Your task to perform on an android device: Open Google Image 0: 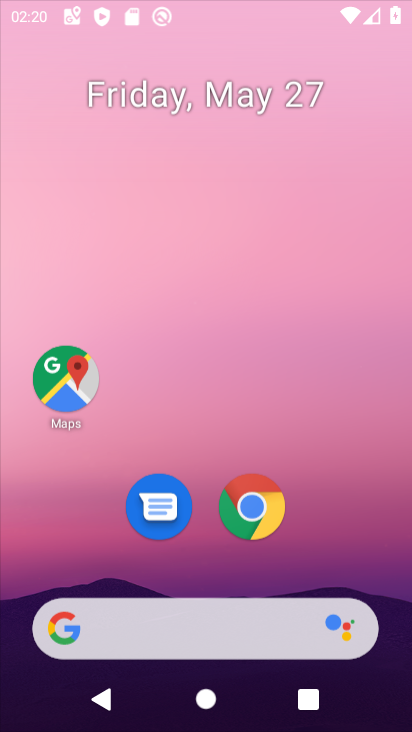
Step 0: drag from (198, 556) to (204, 91)
Your task to perform on an android device: Open Google Image 1: 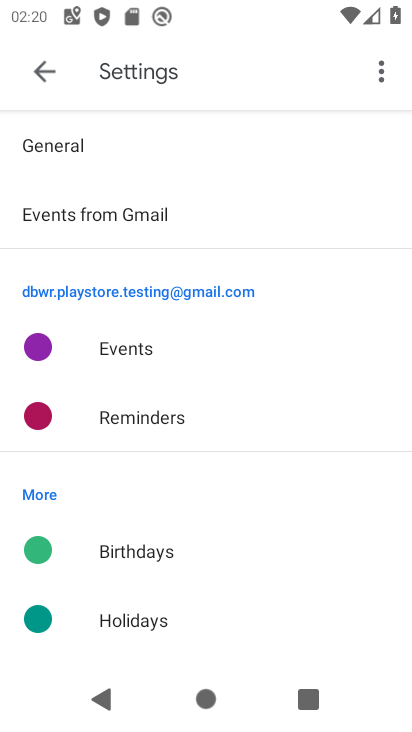
Step 1: press home button
Your task to perform on an android device: Open Google Image 2: 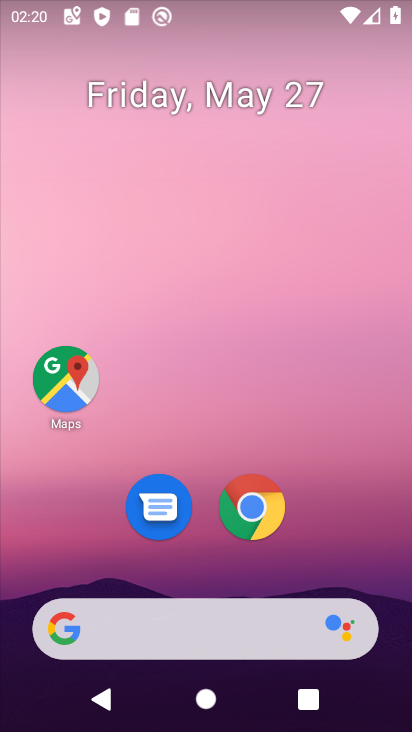
Step 2: drag from (187, 524) to (199, 104)
Your task to perform on an android device: Open Google Image 3: 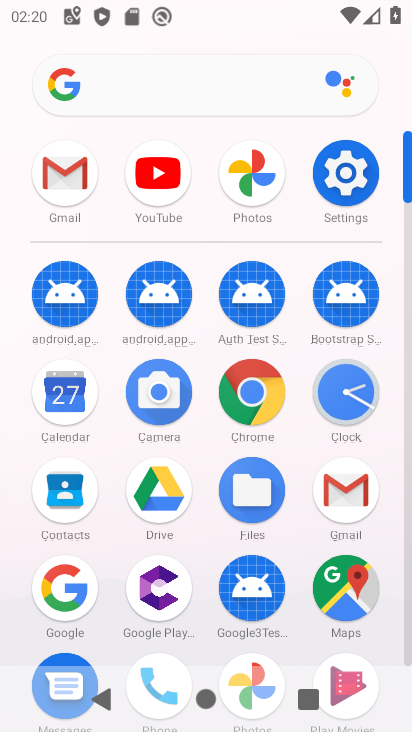
Step 3: click (70, 594)
Your task to perform on an android device: Open Google Image 4: 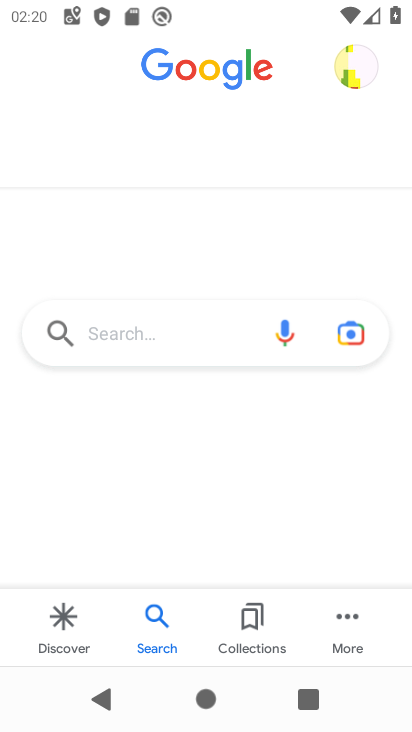
Step 4: task complete